Your task to perform on an android device: How much does a 2 bedroom apartment rent for in Miami? Image 0: 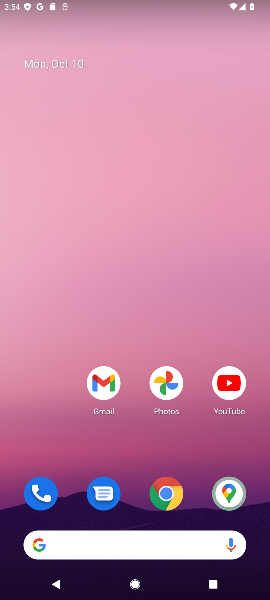
Step 0: click (125, 540)
Your task to perform on an android device: How much does a 2 bedroom apartment rent for in Miami? Image 1: 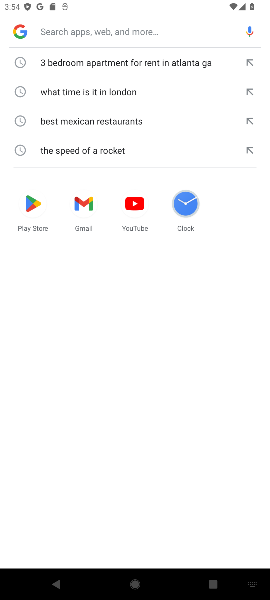
Step 1: type "2 bedroom apartment rent for in Miami"
Your task to perform on an android device: How much does a 2 bedroom apartment rent for in Miami? Image 2: 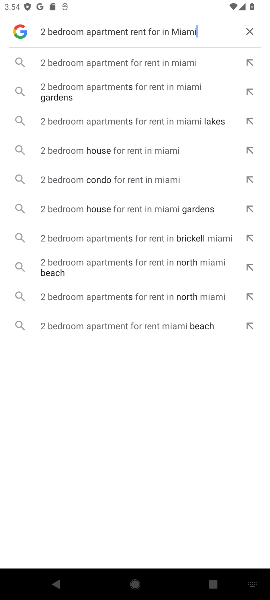
Step 2: click (156, 54)
Your task to perform on an android device: How much does a 2 bedroom apartment rent for in Miami? Image 3: 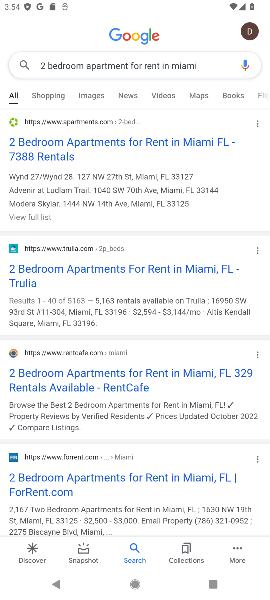
Step 3: task complete